Your task to perform on an android device: change alarm snooze length Image 0: 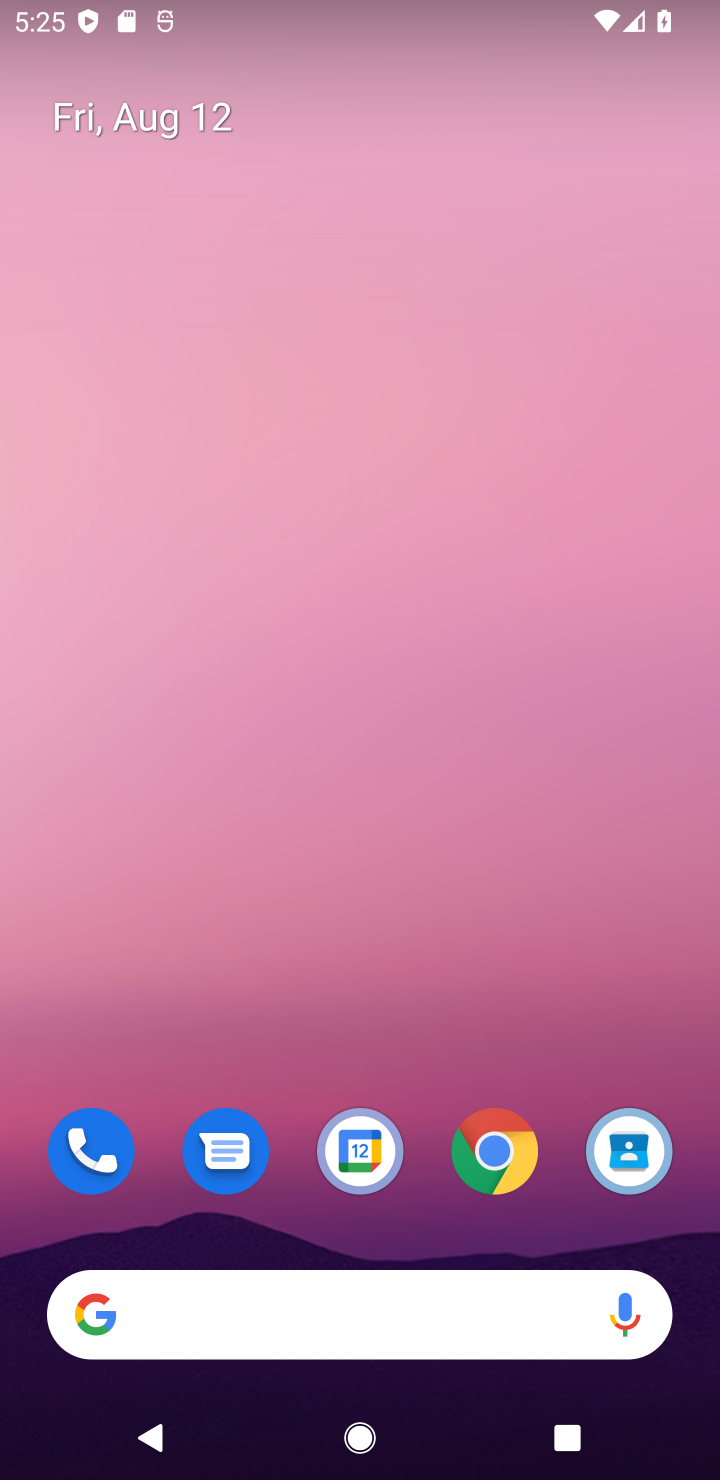
Step 0: press home button
Your task to perform on an android device: change alarm snooze length Image 1: 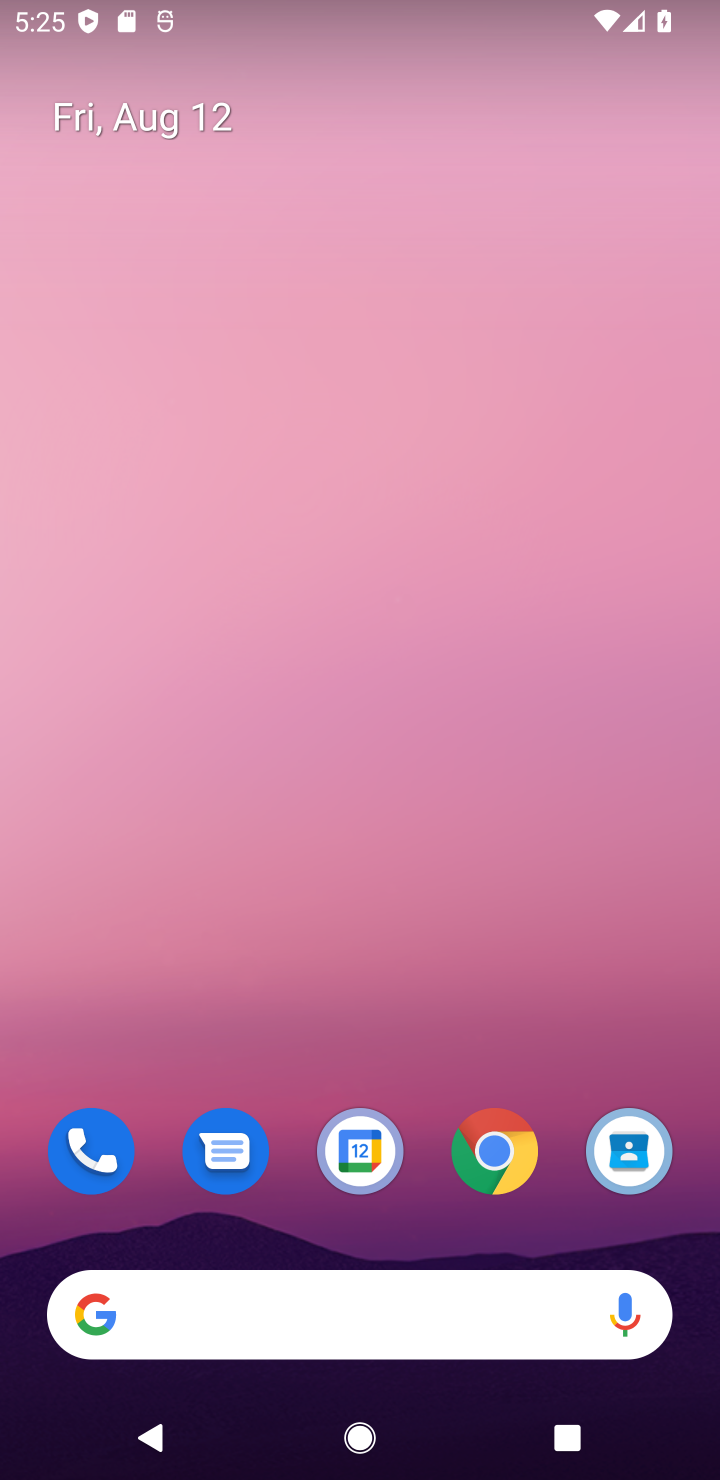
Step 1: drag from (334, 950) to (332, 85)
Your task to perform on an android device: change alarm snooze length Image 2: 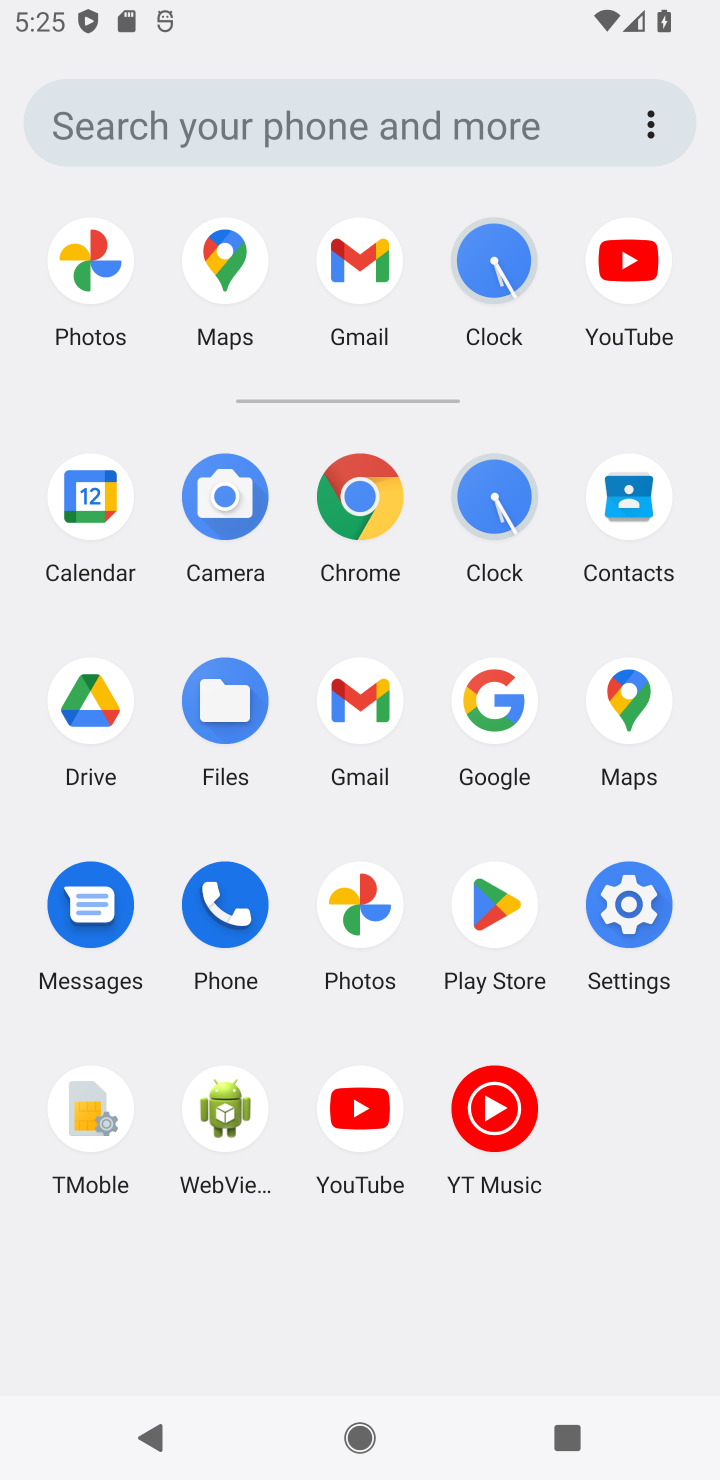
Step 2: click (506, 494)
Your task to perform on an android device: change alarm snooze length Image 3: 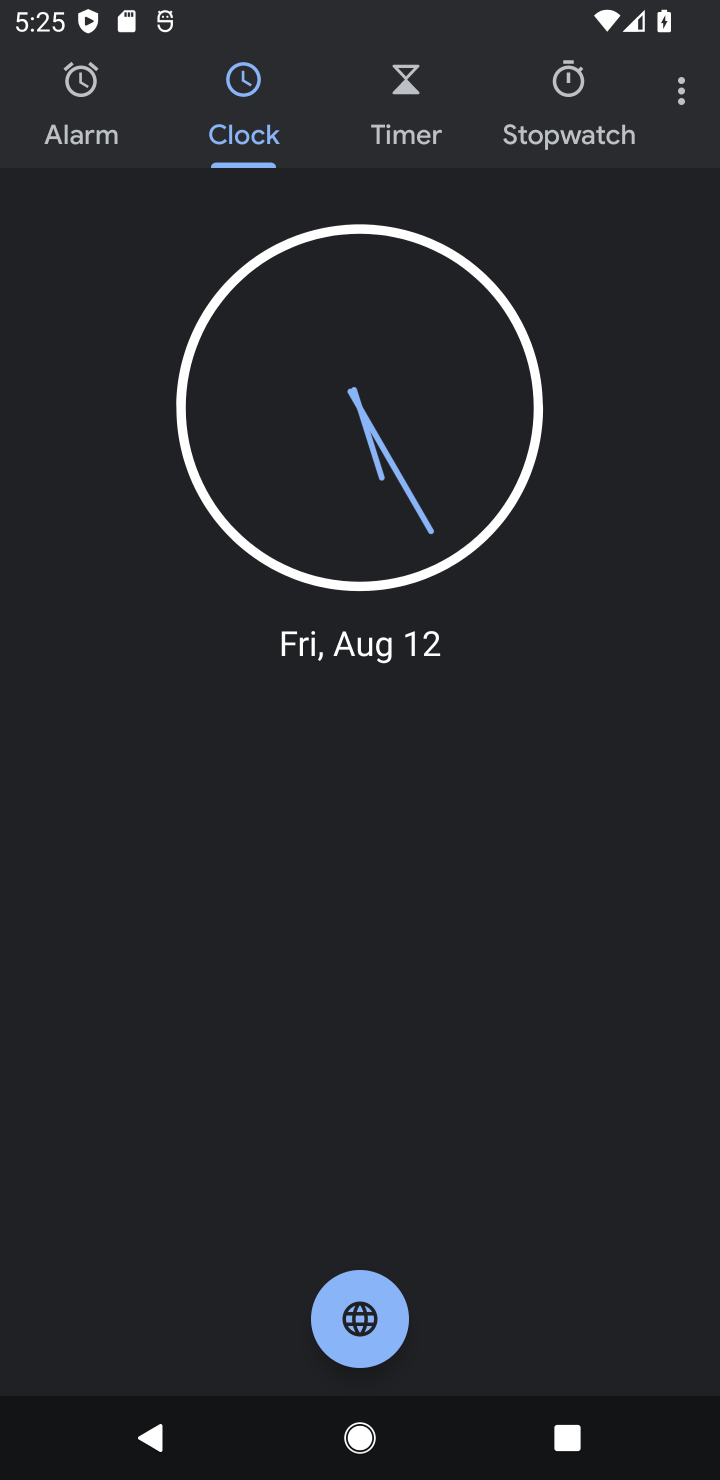
Step 3: click (675, 87)
Your task to perform on an android device: change alarm snooze length Image 4: 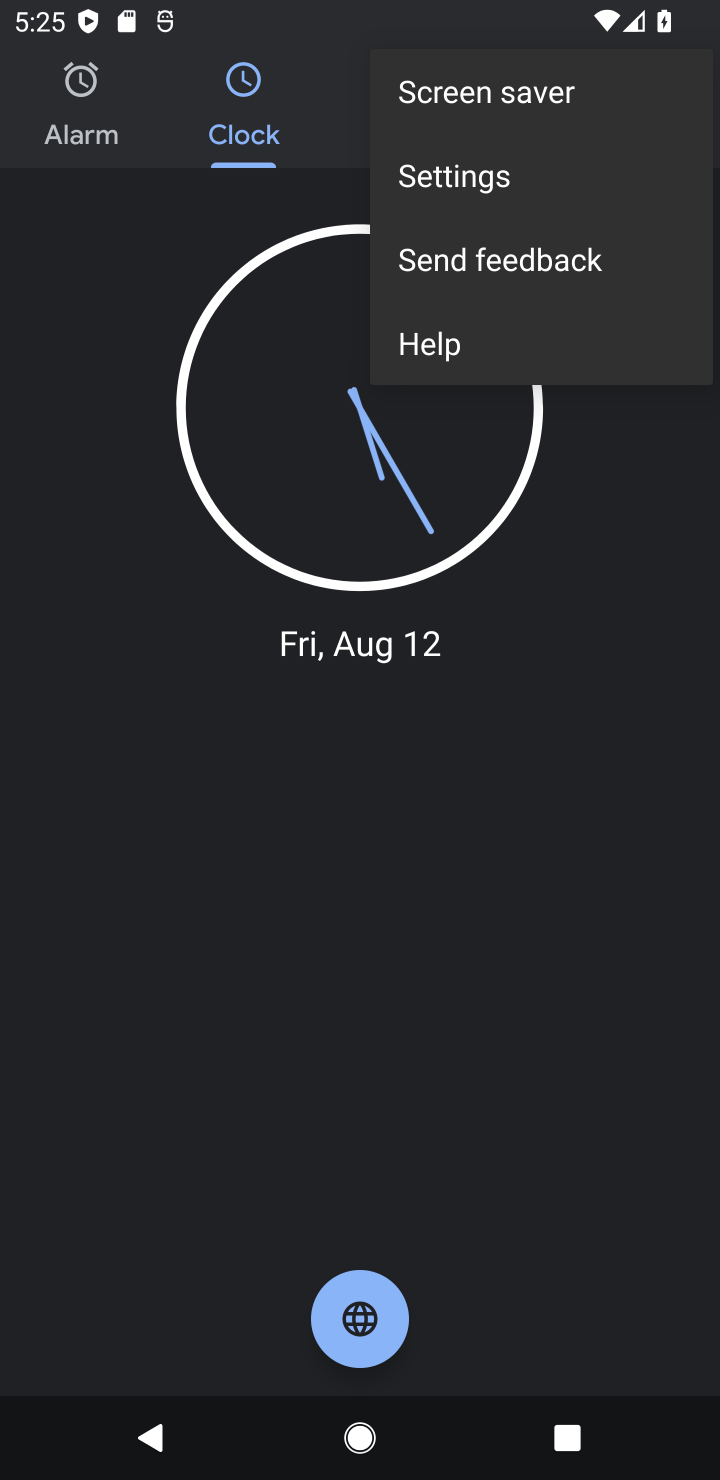
Step 4: click (450, 199)
Your task to perform on an android device: change alarm snooze length Image 5: 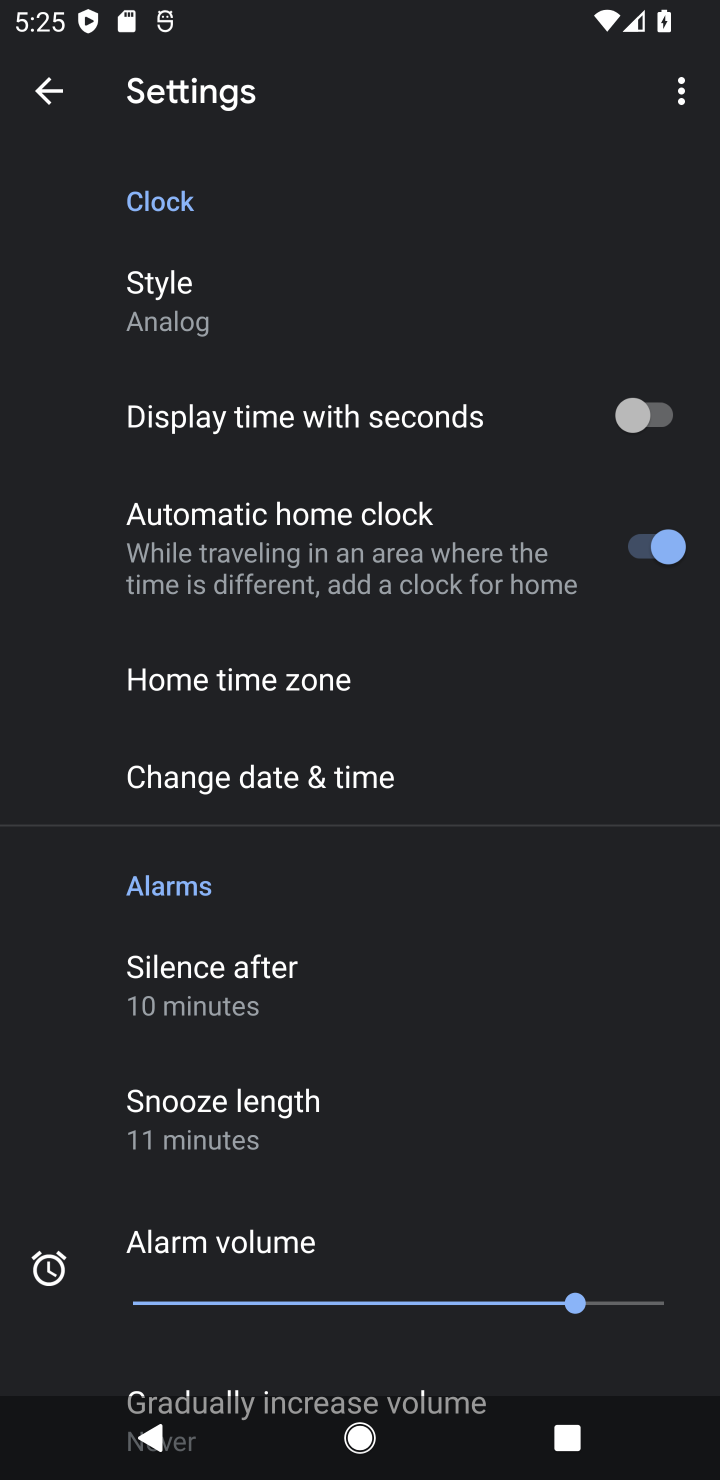
Step 5: click (229, 1135)
Your task to perform on an android device: change alarm snooze length Image 6: 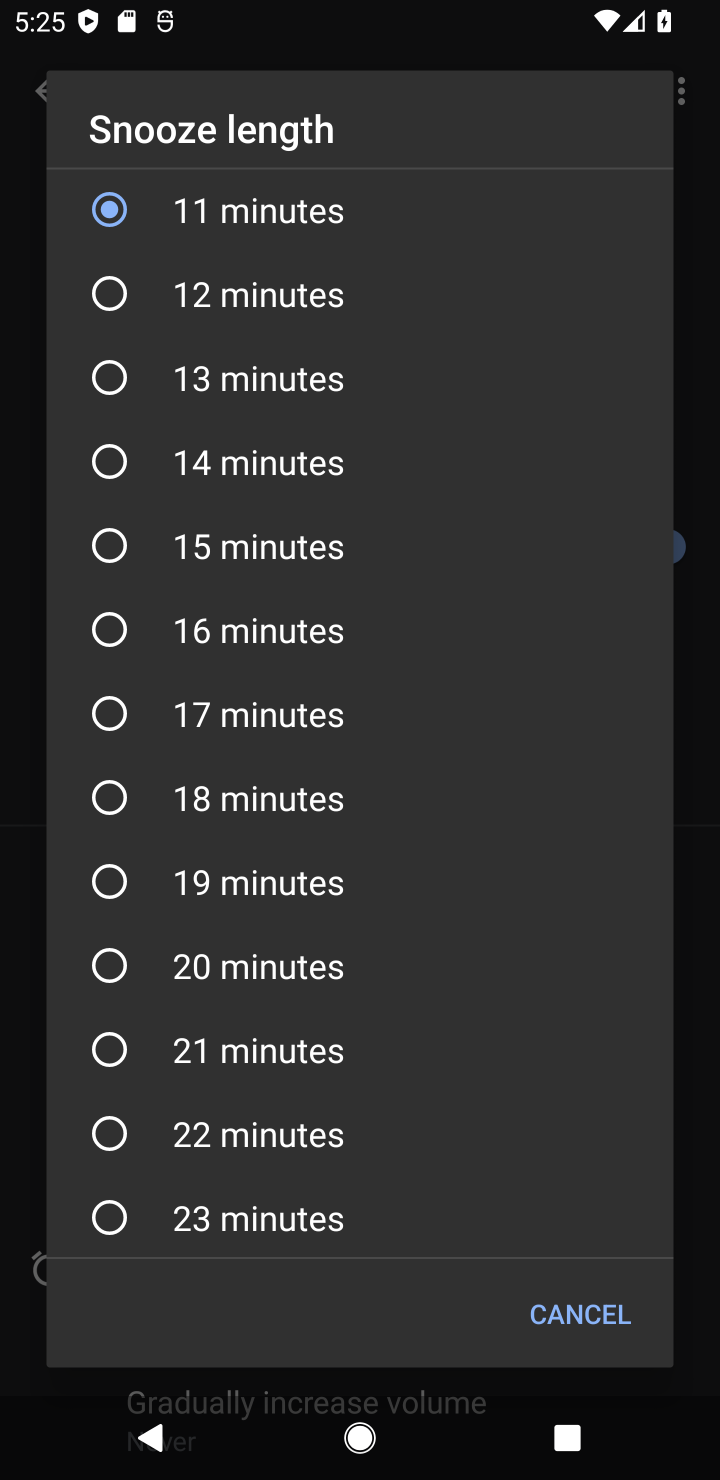
Step 6: click (300, 294)
Your task to perform on an android device: change alarm snooze length Image 7: 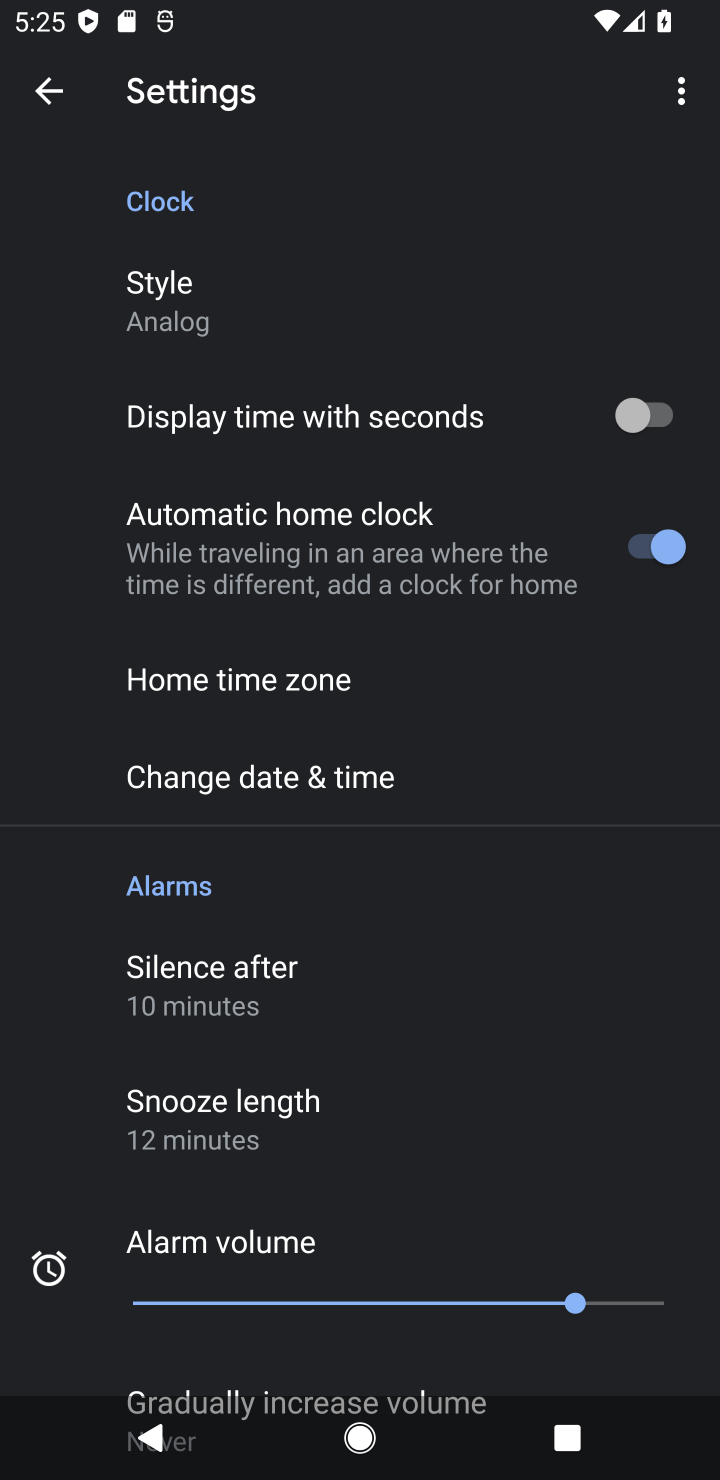
Step 7: task complete